Your task to perform on an android device: turn off improve location accuracy Image 0: 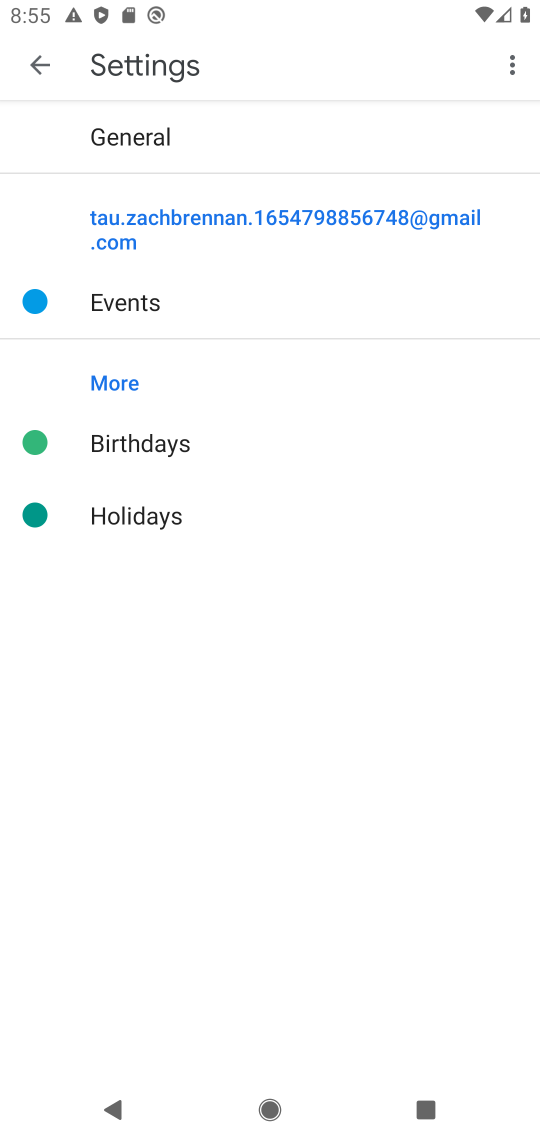
Step 0: press home button
Your task to perform on an android device: turn off improve location accuracy Image 1: 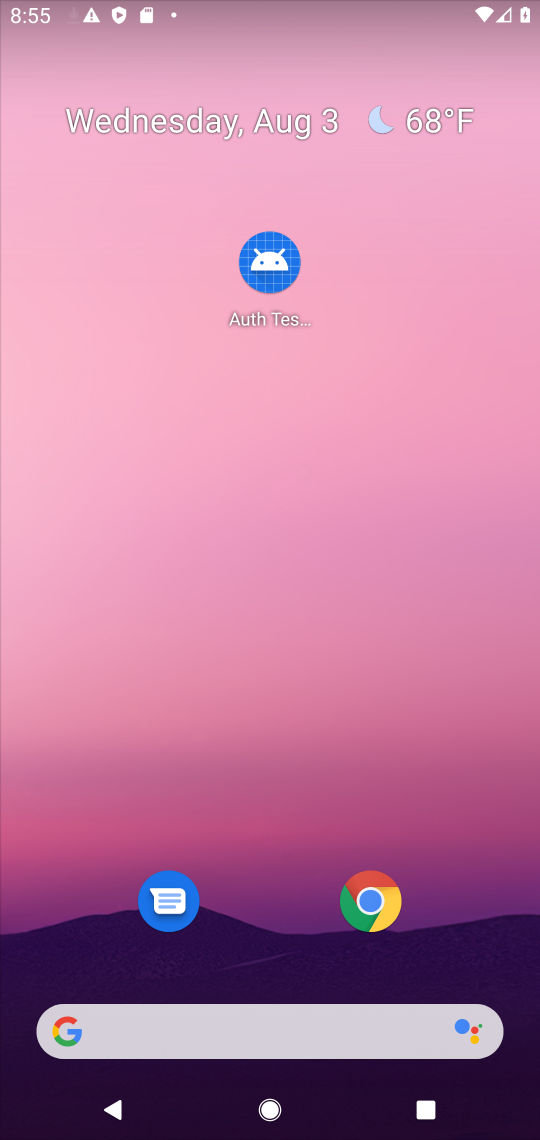
Step 1: drag from (488, 911) to (342, 172)
Your task to perform on an android device: turn off improve location accuracy Image 2: 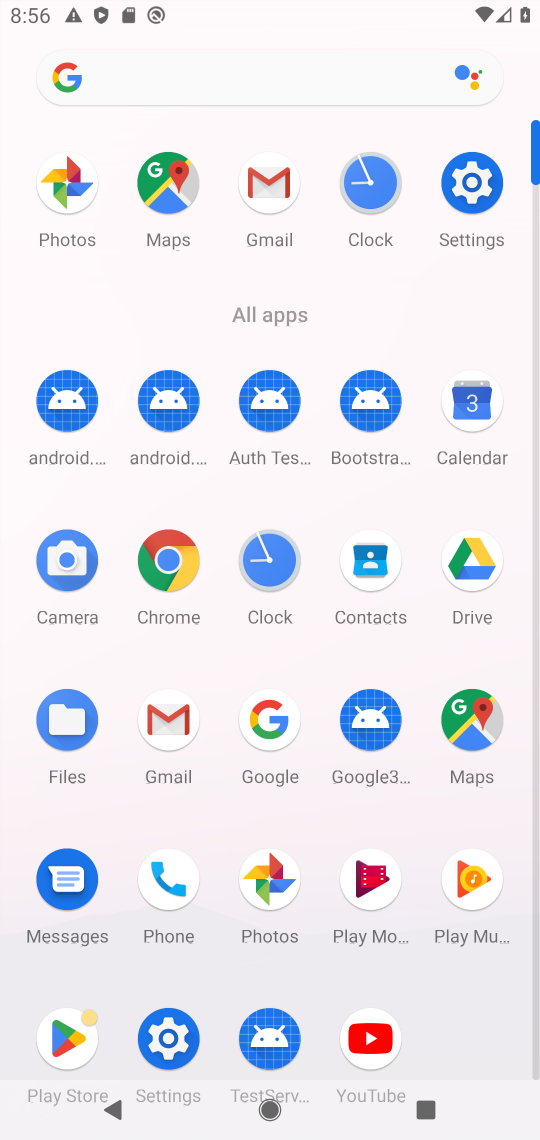
Step 2: click (472, 188)
Your task to perform on an android device: turn off improve location accuracy Image 3: 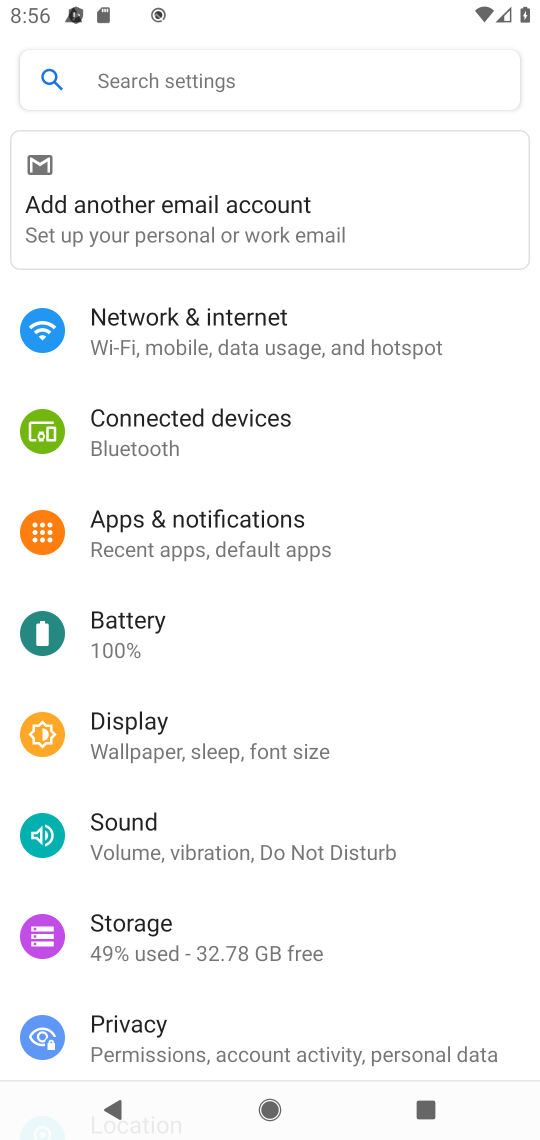
Step 3: drag from (253, 916) to (205, 295)
Your task to perform on an android device: turn off improve location accuracy Image 4: 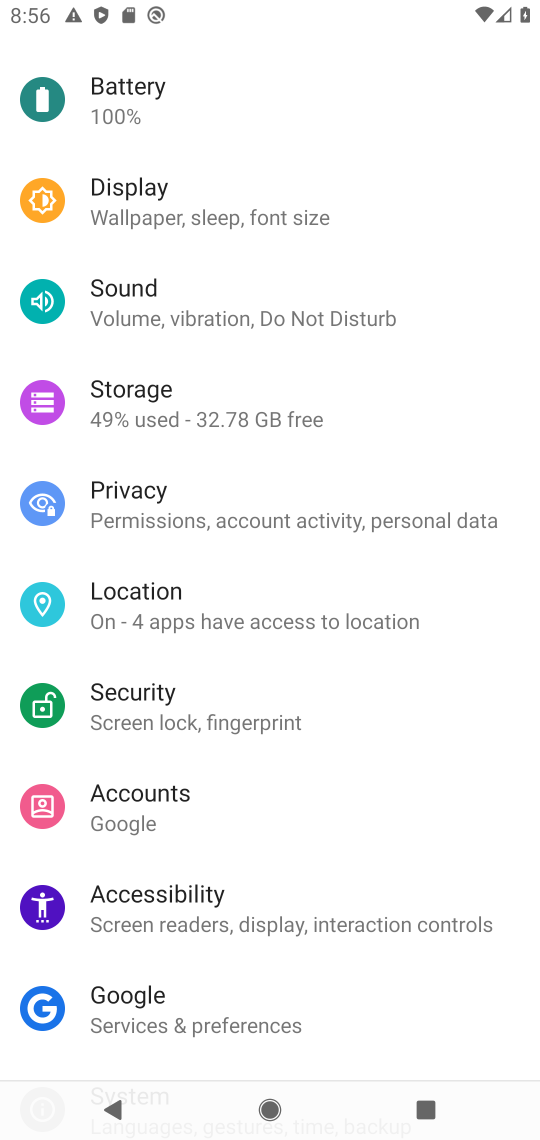
Step 4: click (197, 599)
Your task to perform on an android device: turn off improve location accuracy Image 5: 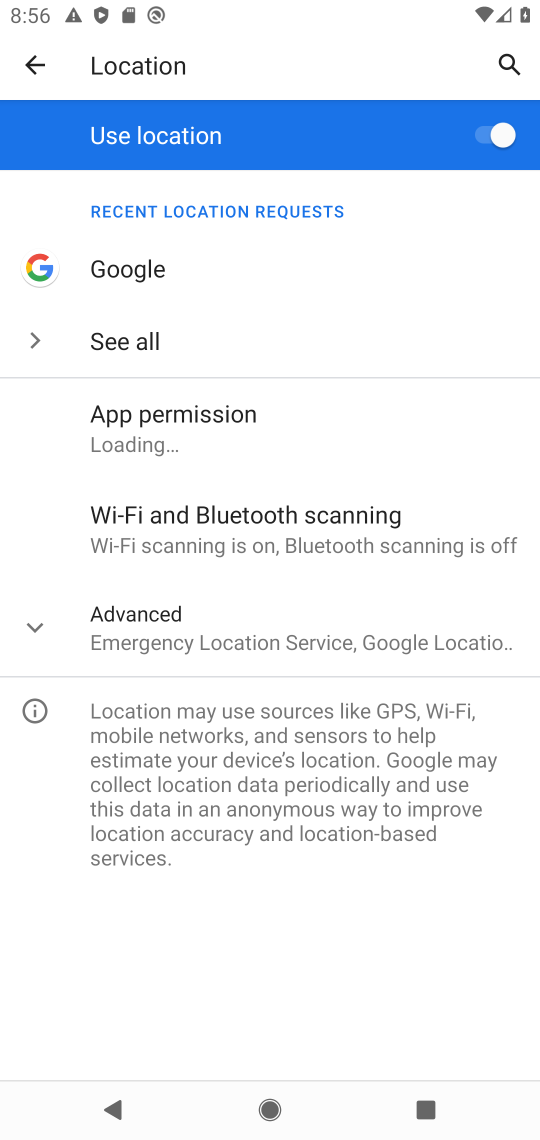
Step 5: click (270, 626)
Your task to perform on an android device: turn off improve location accuracy Image 6: 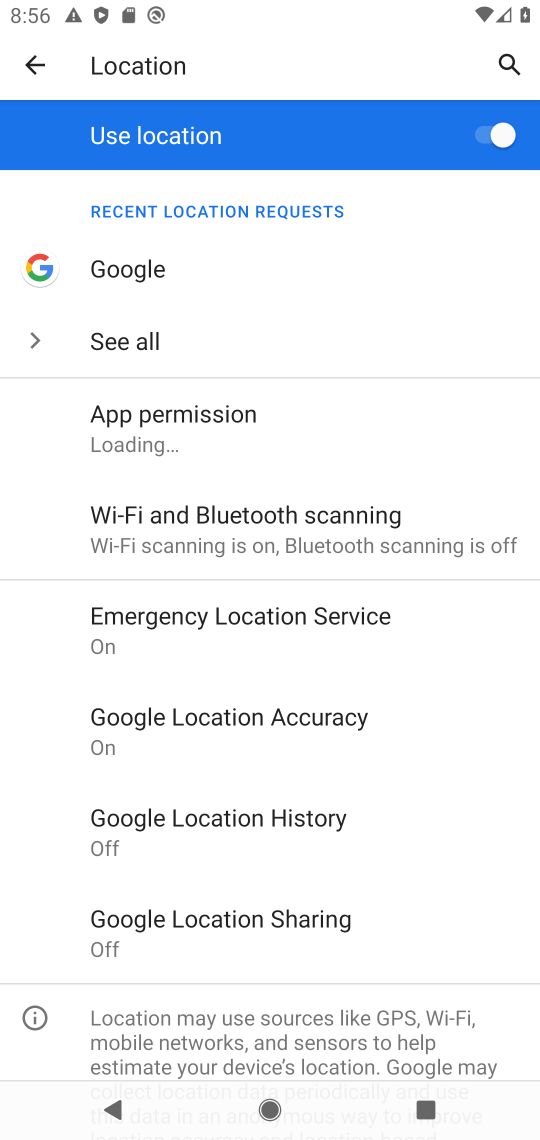
Step 6: click (322, 734)
Your task to perform on an android device: turn off improve location accuracy Image 7: 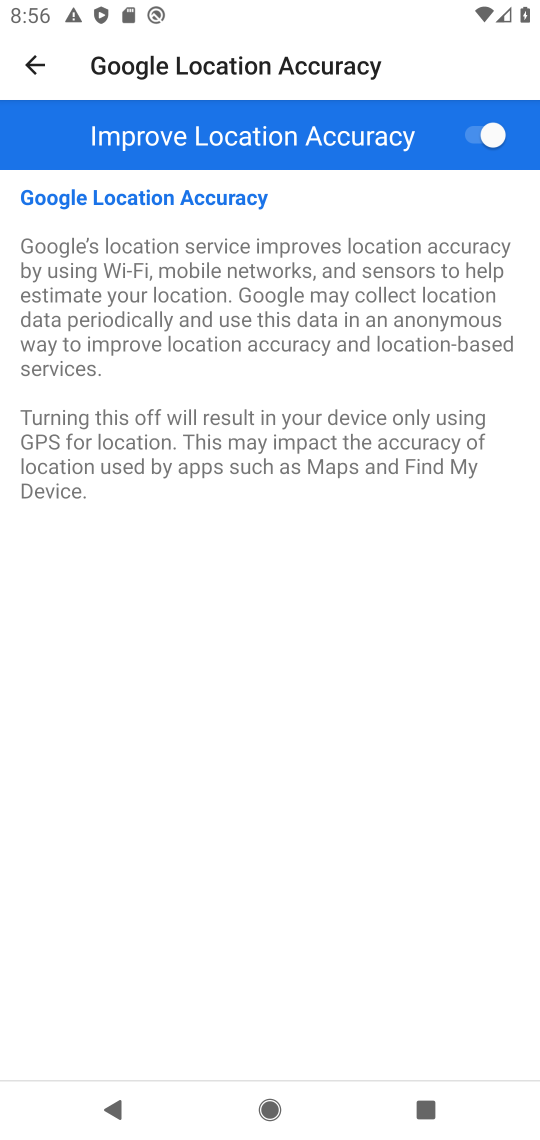
Step 7: click (479, 145)
Your task to perform on an android device: turn off improve location accuracy Image 8: 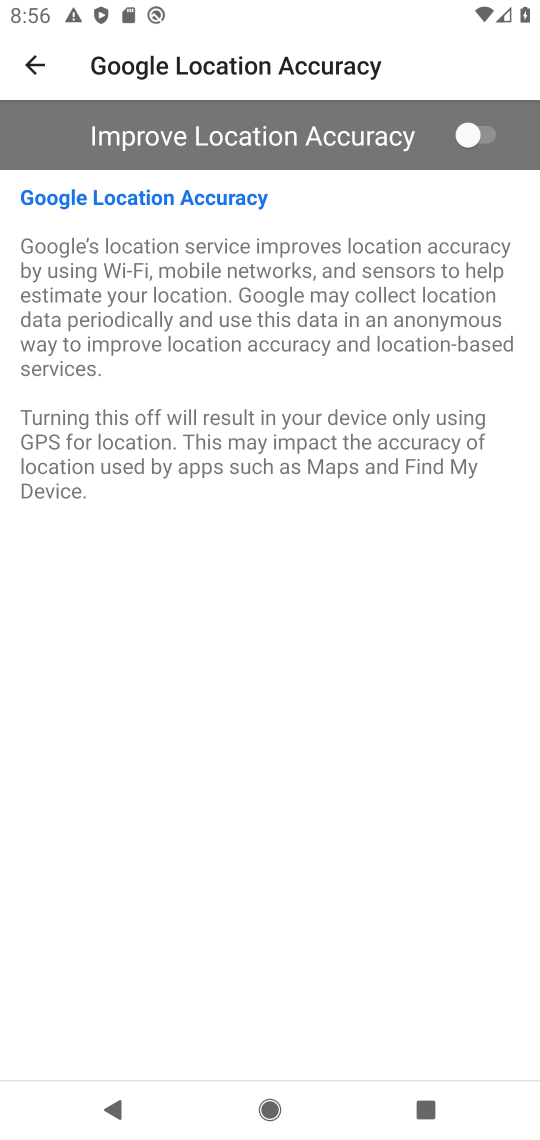
Step 8: task complete